Your task to perform on an android device: Go to Google maps Image 0: 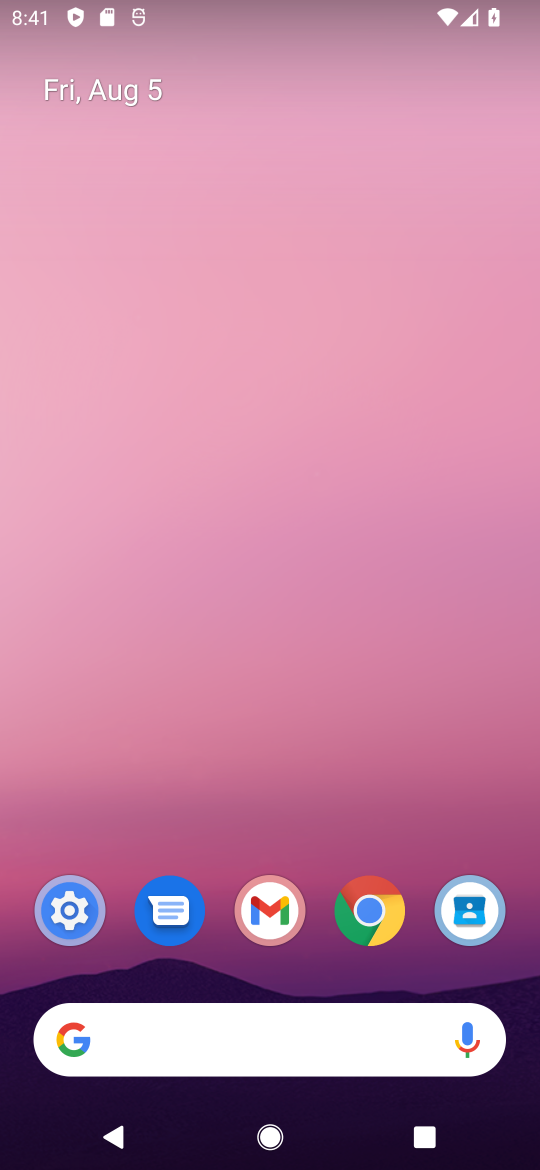
Step 0: press home button
Your task to perform on an android device: Go to Google maps Image 1: 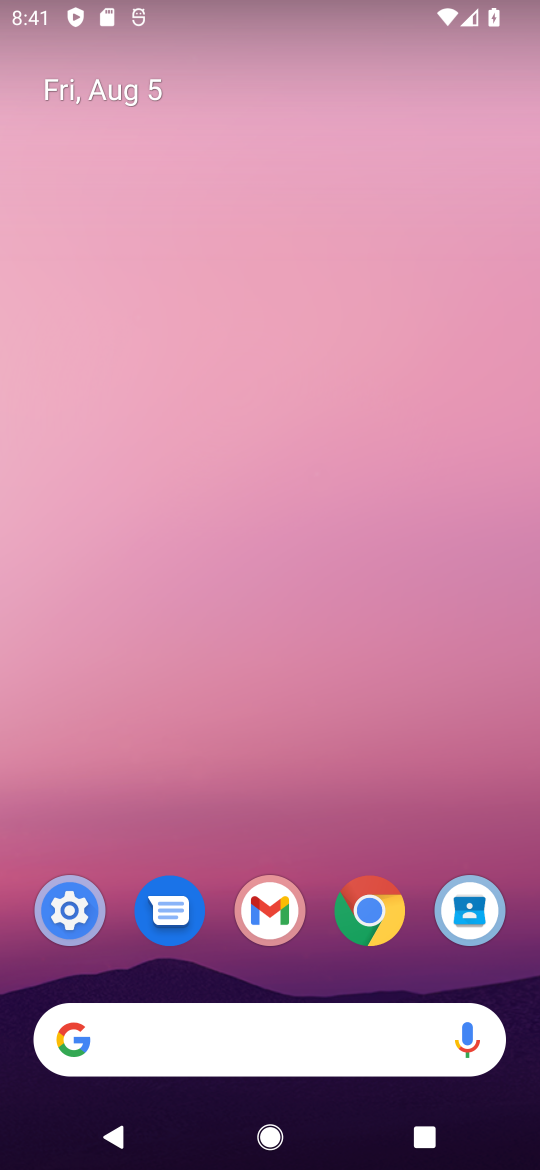
Step 1: drag from (233, 1020) to (447, 192)
Your task to perform on an android device: Go to Google maps Image 2: 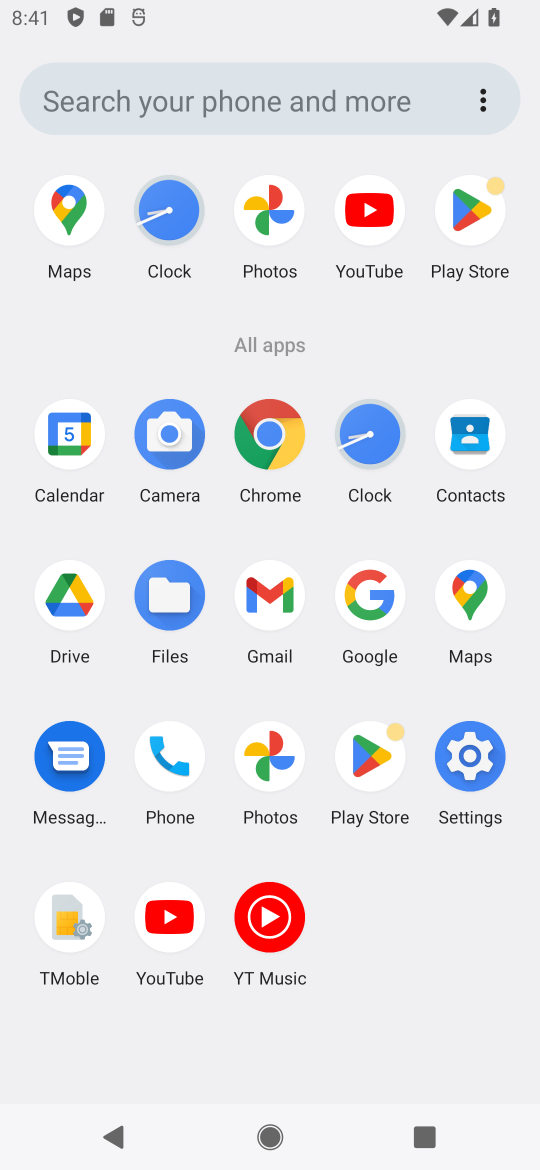
Step 2: click (469, 593)
Your task to perform on an android device: Go to Google maps Image 3: 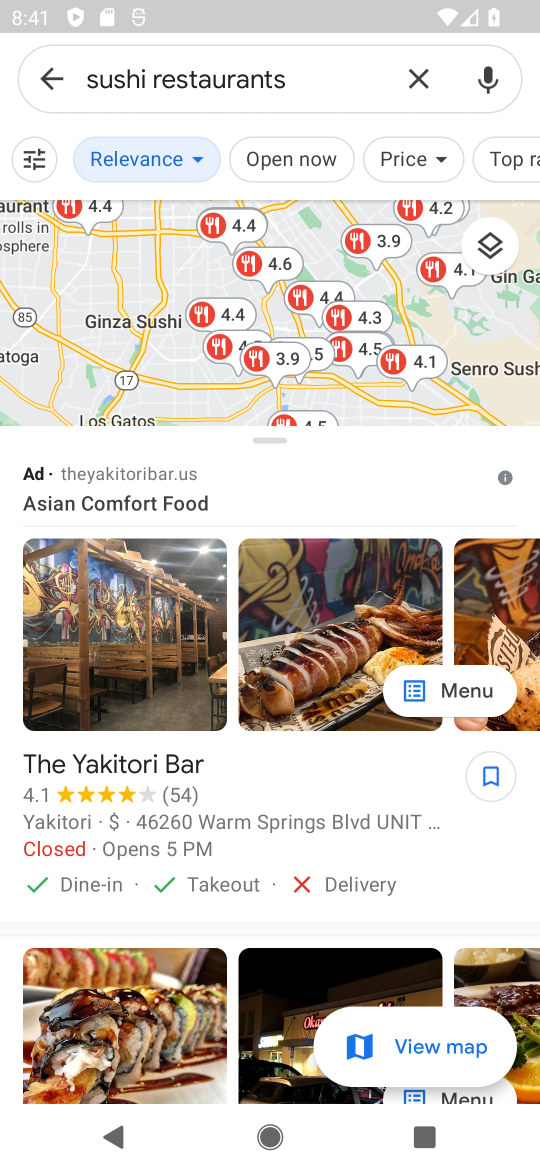
Step 3: click (431, 66)
Your task to perform on an android device: Go to Google maps Image 4: 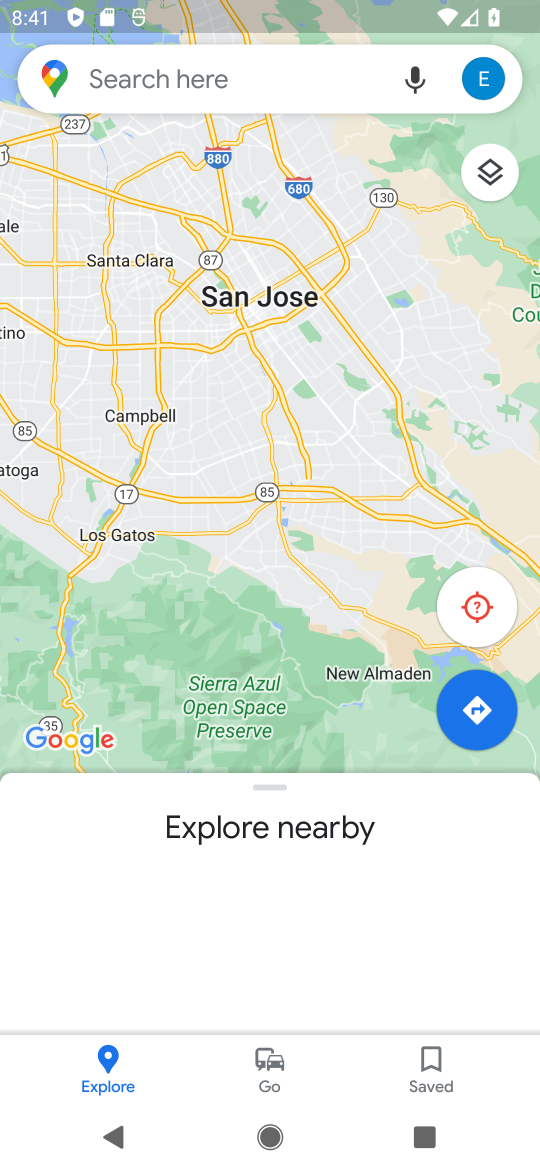
Step 4: task complete